Your task to perform on an android device: Open Google Maps and go to "Timeline" Image 0: 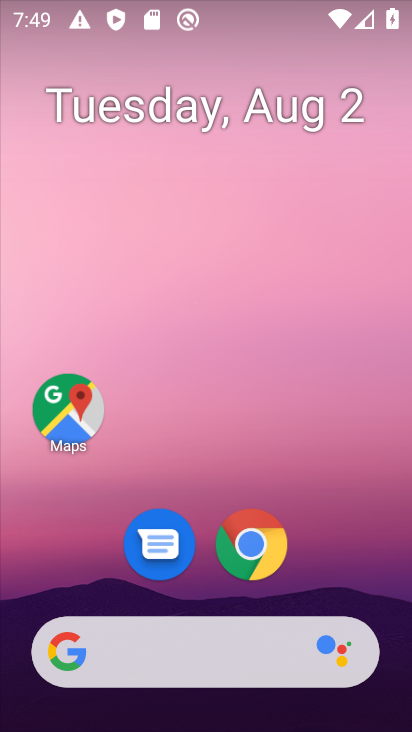
Step 0: drag from (150, 617) to (186, 302)
Your task to perform on an android device: Open Google Maps and go to "Timeline" Image 1: 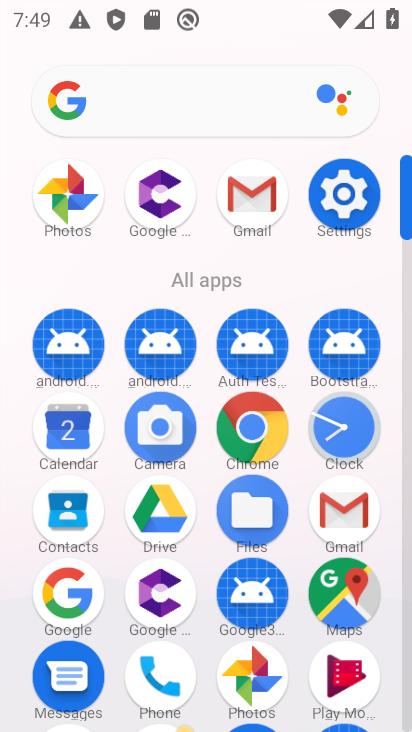
Step 1: drag from (132, 555) to (157, 323)
Your task to perform on an android device: Open Google Maps and go to "Timeline" Image 2: 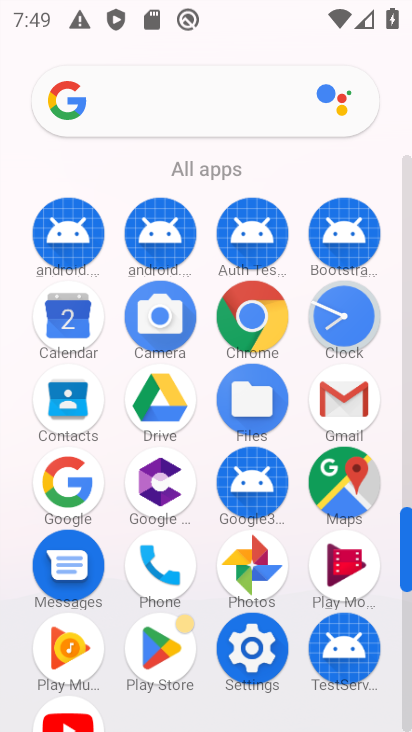
Step 2: click (364, 487)
Your task to perform on an android device: Open Google Maps and go to "Timeline" Image 3: 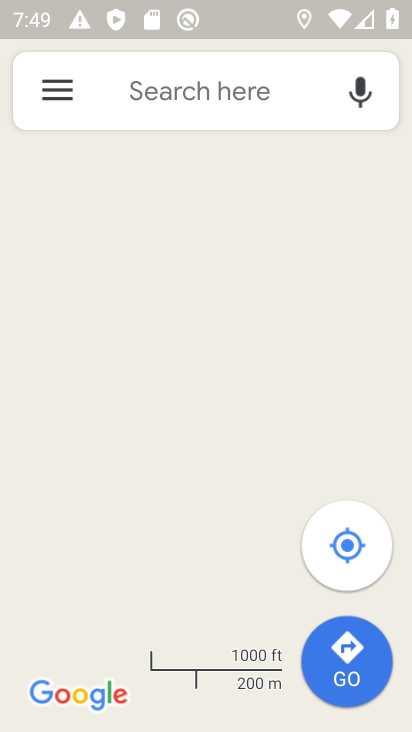
Step 3: click (53, 90)
Your task to perform on an android device: Open Google Maps and go to "Timeline" Image 4: 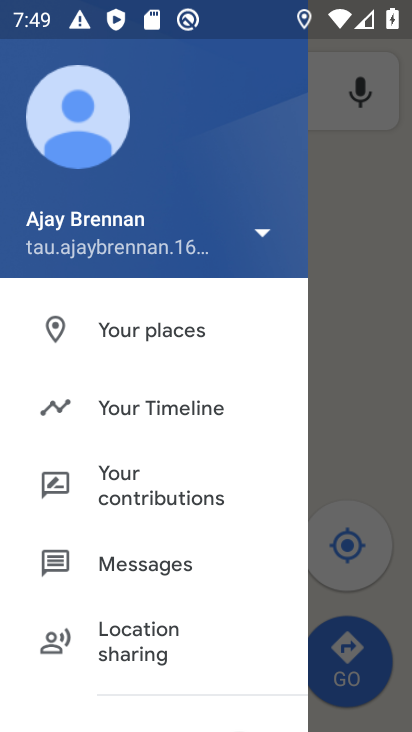
Step 4: click (150, 427)
Your task to perform on an android device: Open Google Maps and go to "Timeline" Image 5: 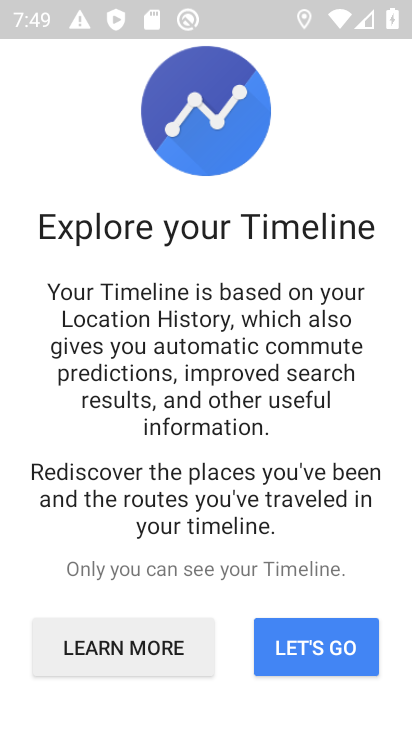
Step 5: click (299, 654)
Your task to perform on an android device: Open Google Maps and go to "Timeline" Image 6: 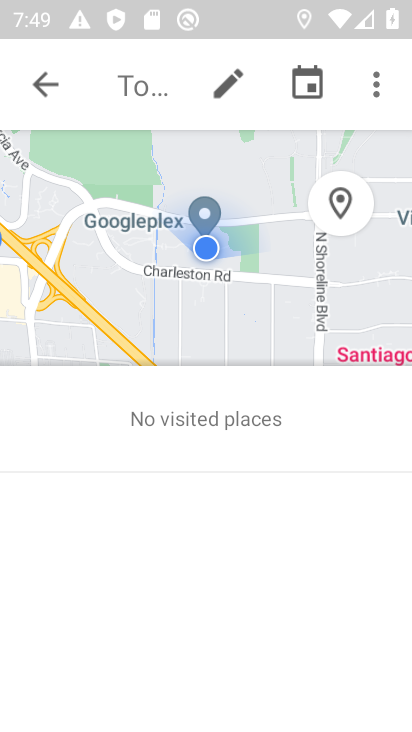
Step 6: task complete